Your task to perform on an android device: turn off translation in the chrome app Image 0: 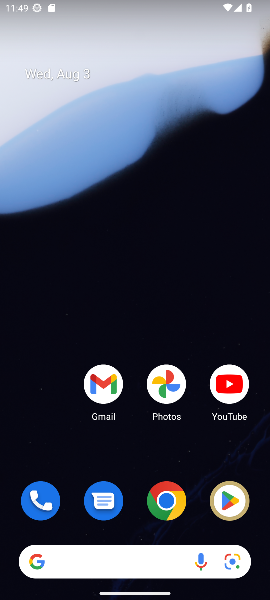
Step 0: click (178, 492)
Your task to perform on an android device: turn off translation in the chrome app Image 1: 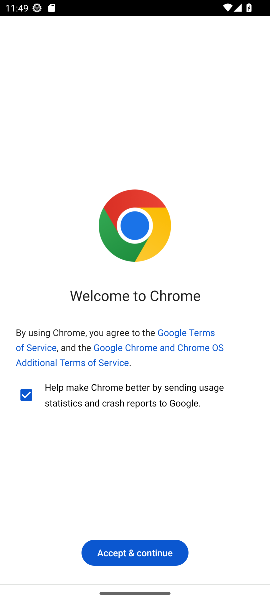
Step 1: click (109, 552)
Your task to perform on an android device: turn off translation in the chrome app Image 2: 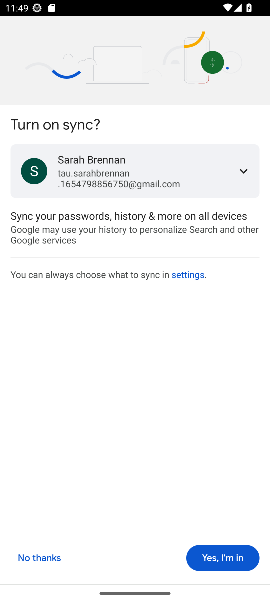
Step 2: click (210, 551)
Your task to perform on an android device: turn off translation in the chrome app Image 3: 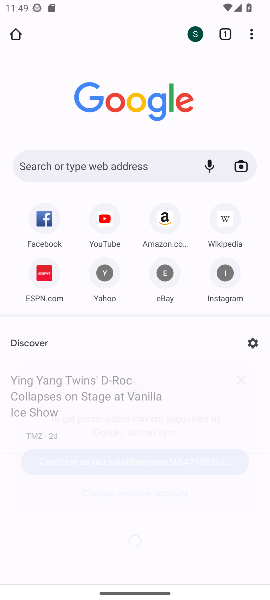
Step 3: click (256, 34)
Your task to perform on an android device: turn off translation in the chrome app Image 4: 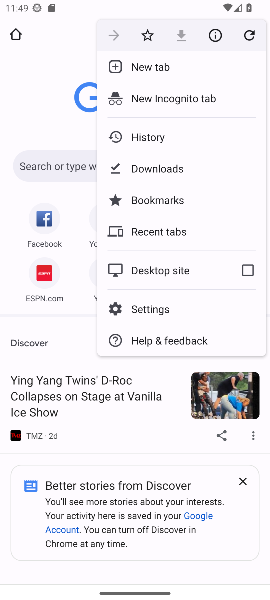
Step 4: click (168, 303)
Your task to perform on an android device: turn off translation in the chrome app Image 5: 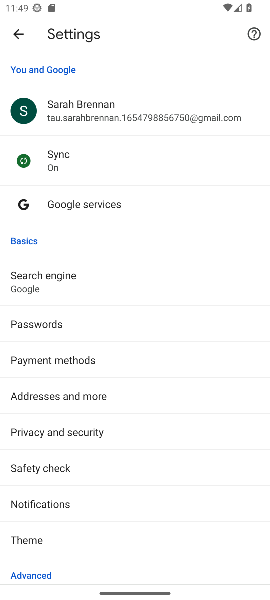
Step 5: drag from (106, 509) to (125, 202)
Your task to perform on an android device: turn off translation in the chrome app Image 6: 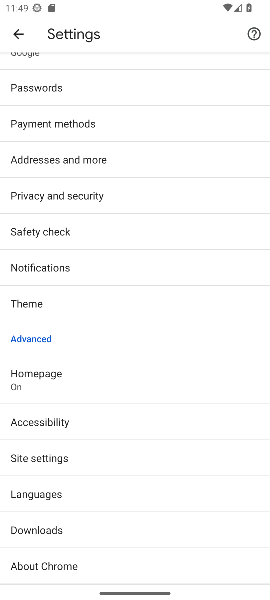
Step 6: click (55, 493)
Your task to perform on an android device: turn off translation in the chrome app Image 7: 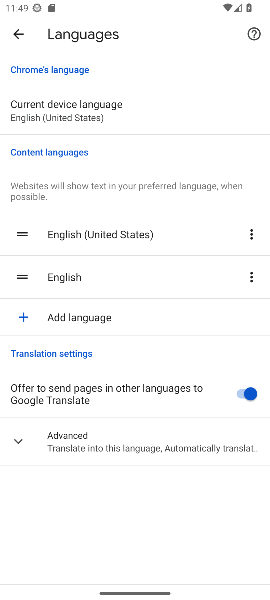
Step 7: click (237, 386)
Your task to perform on an android device: turn off translation in the chrome app Image 8: 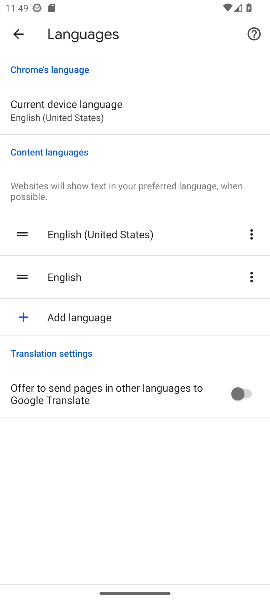
Step 8: task complete